Your task to perform on an android device: Show me productivity apps on the Play Store Image 0: 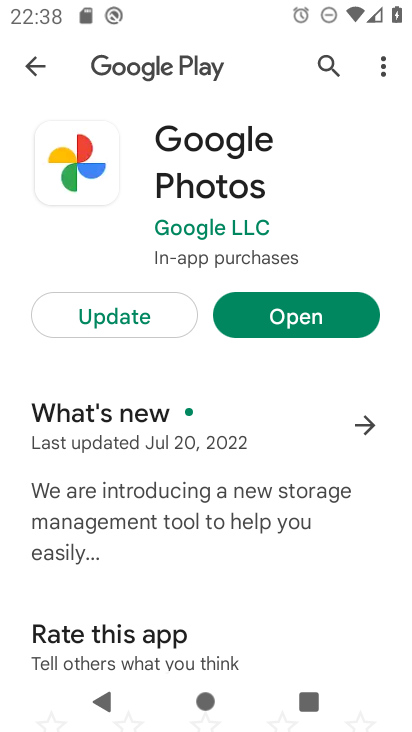
Step 0: press home button
Your task to perform on an android device: Show me productivity apps on the Play Store Image 1: 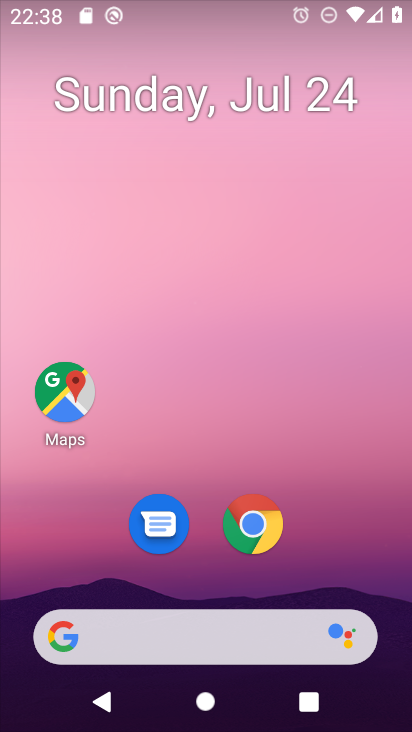
Step 1: drag from (204, 632) to (349, 131)
Your task to perform on an android device: Show me productivity apps on the Play Store Image 2: 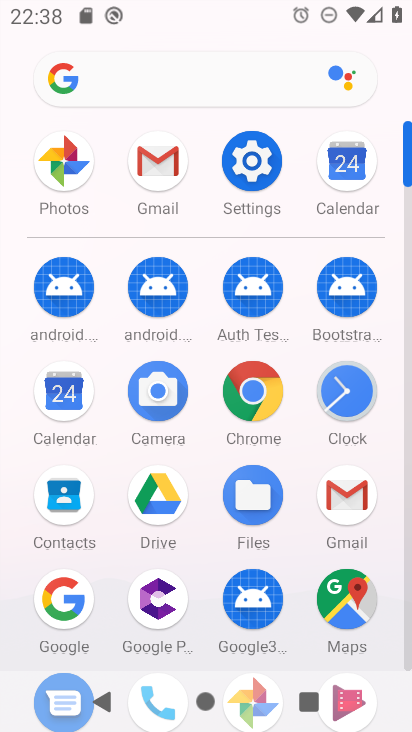
Step 2: drag from (203, 625) to (321, 222)
Your task to perform on an android device: Show me productivity apps on the Play Store Image 3: 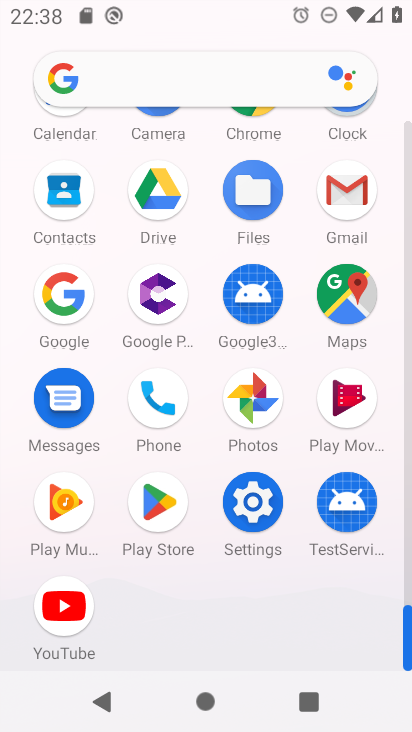
Step 3: click (159, 507)
Your task to perform on an android device: Show me productivity apps on the Play Store Image 4: 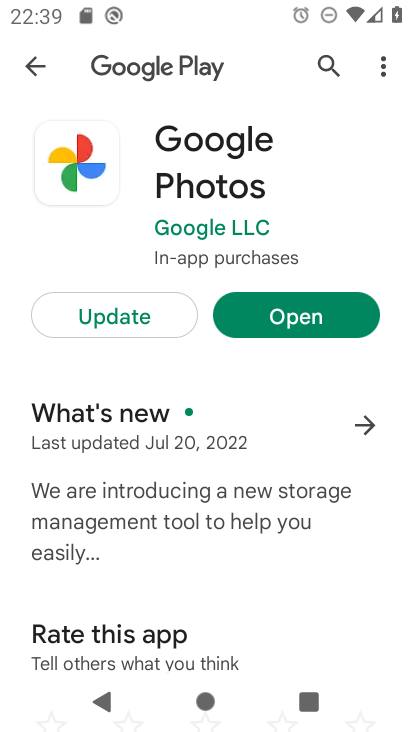
Step 4: click (288, 332)
Your task to perform on an android device: Show me productivity apps on the Play Store Image 5: 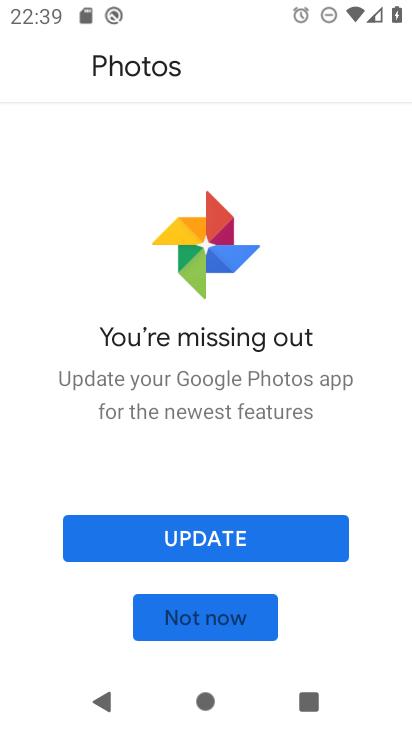
Step 5: press home button
Your task to perform on an android device: Show me productivity apps on the Play Store Image 6: 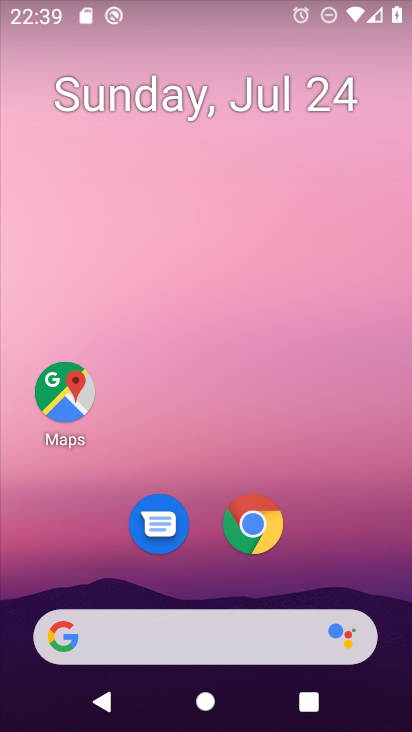
Step 6: drag from (176, 546) to (264, 51)
Your task to perform on an android device: Show me productivity apps on the Play Store Image 7: 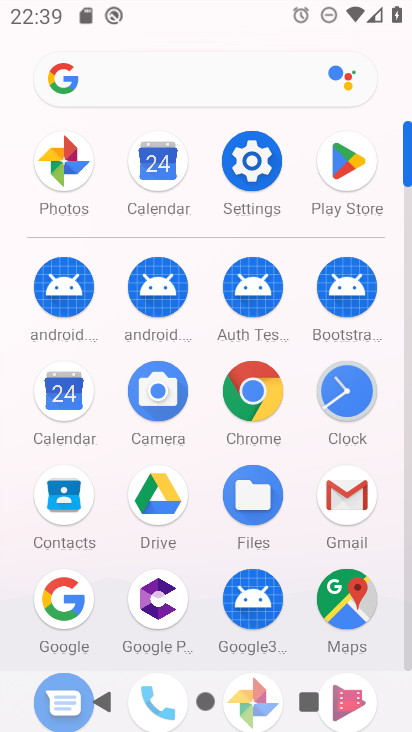
Step 7: drag from (176, 668) to (218, 143)
Your task to perform on an android device: Show me productivity apps on the Play Store Image 8: 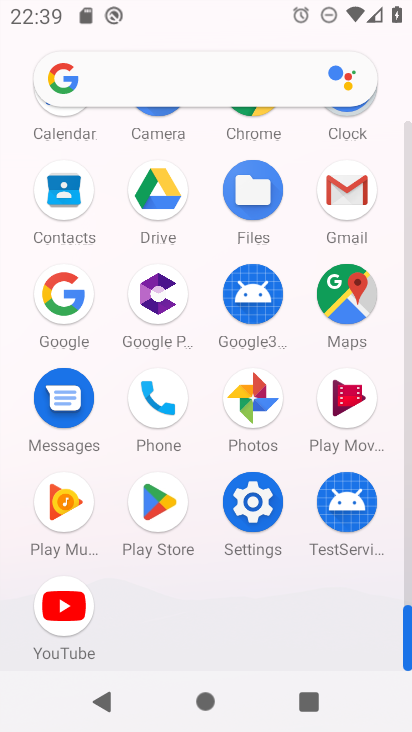
Step 8: click (154, 512)
Your task to perform on an android device: Show me productivity apps on the Play Store Image 9: 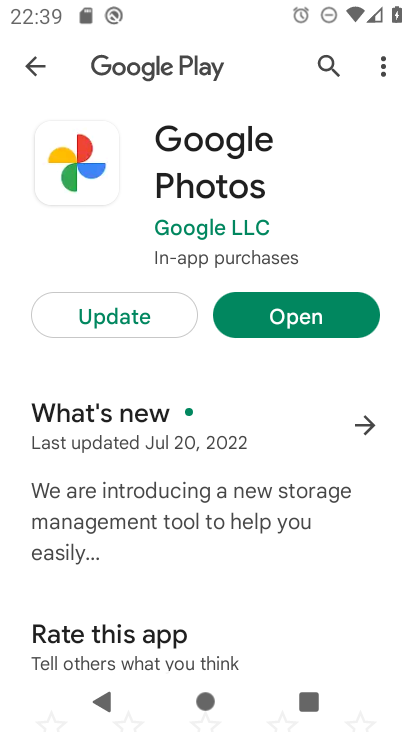
Step 9: click (30, 66)
Your task to perform on an android device: Show me productivity apps on the Play Store Image 10: 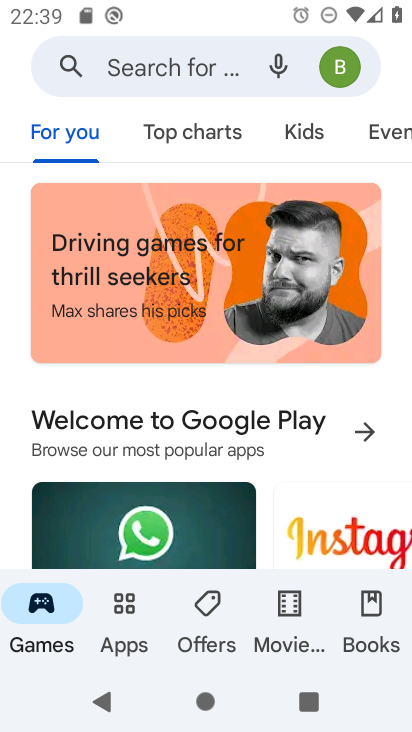
Step 10: click (119, 603)
Your task to perform on an android device: Show me productivity apps on the Play Store Image 11: 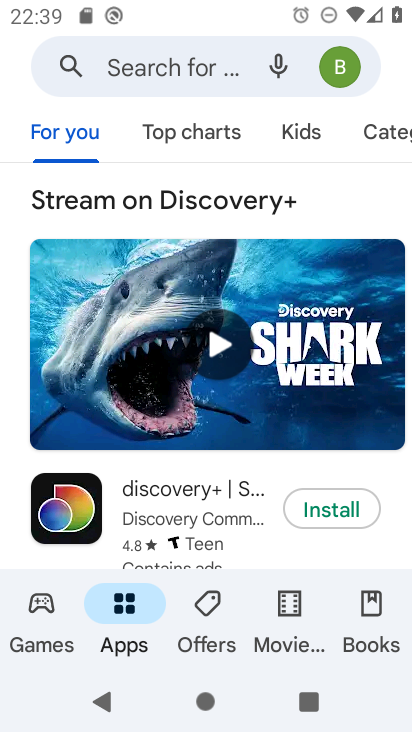
Step 11: click (376, 124)
Your task to perform on an android device: Show me productivity apps on the Play Store Image 12: 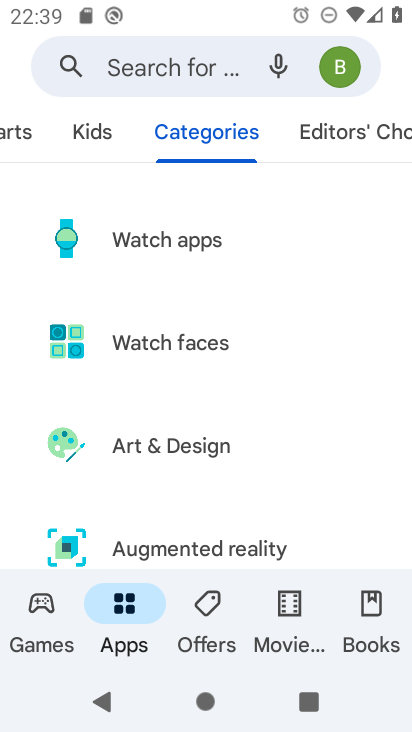
Step 12: drag from (210, 528) to (323, 44)
Your task to perform on an android device: Show me productivity apps on the Play Store Image 13: 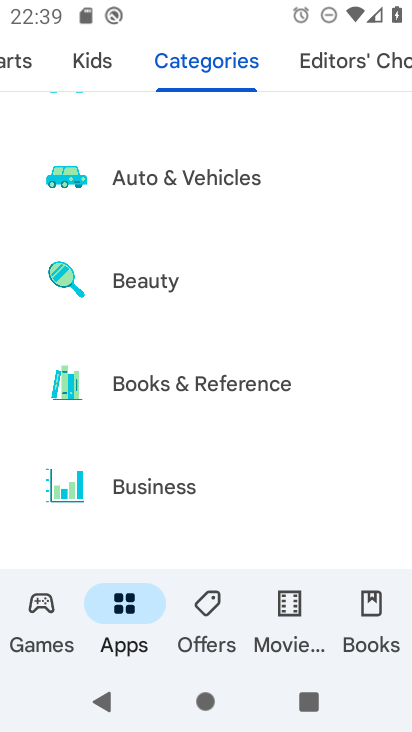
Step 13: drag from (252, 434) to (344, 17)
Your task to perform on an android device: Show me productivity apps on the Play Store Image 14: 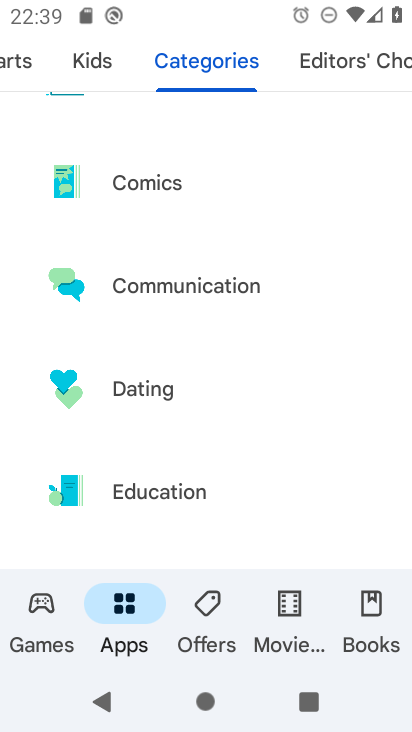
Step 14: drag from (276, 440) to (315, 39)
Your task to perform on an android device: Show me productivity apps on the Play Store Image 15: 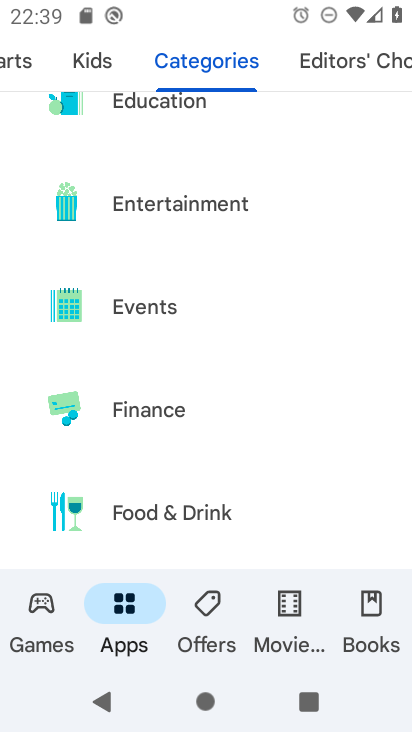
Step 15: drag from (236, 534) to (330, 11)
Your task to perform on an android device: Show me productivity apps on the Play Store Image 16: 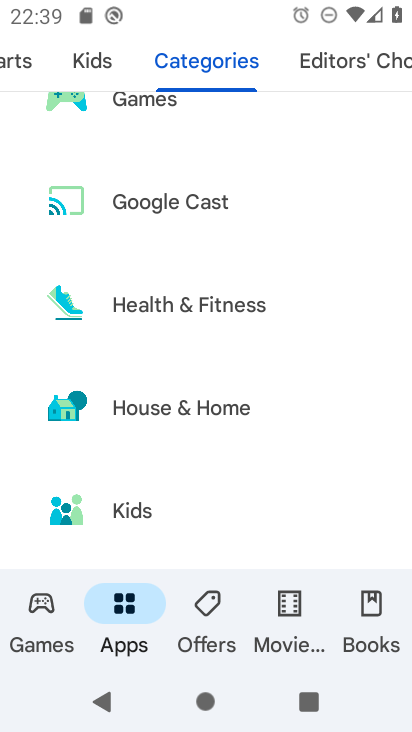
Step 16: drag from (257, 528) to (321, 4)
Your task to perform on an android device: Show me productivity apps on the Play Store Image 17: 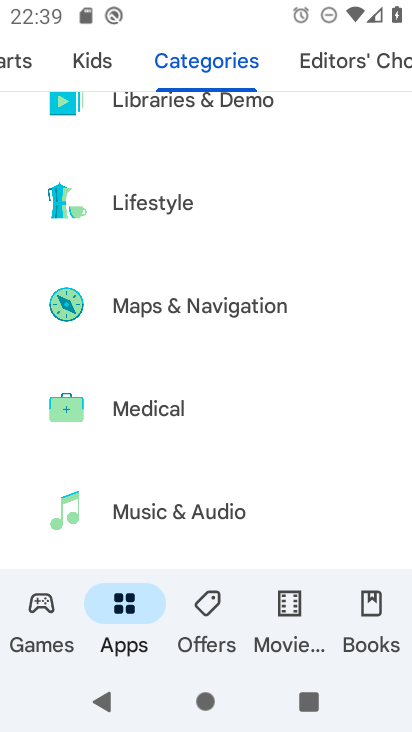
Step 17: drag from (235, 520) to (303, 60)
Your task to perform on an android device: Show me productivity apps on the Play Store Image 18: 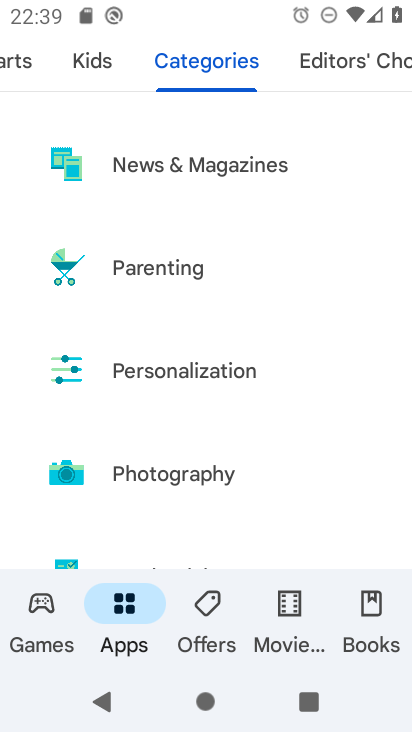
Step 18: drag from (224, 517) to (330, 114)
Your task to perform on an android device: Show me productivity apps on the Play Store Image 19: 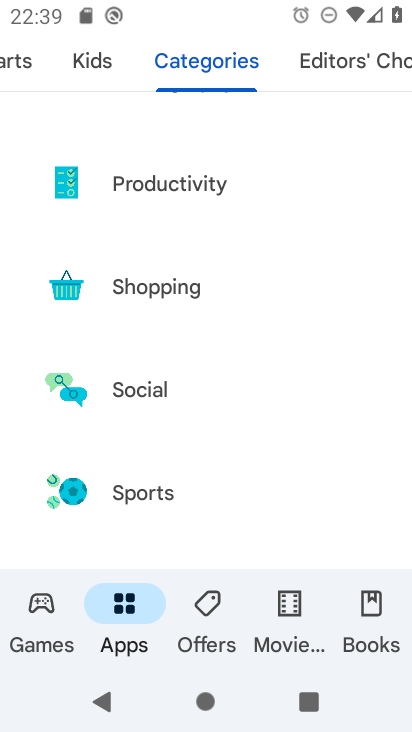
Step 19: click (179, 184)
Your task to perform on an android device: Show me productivity apps on the Play Store Image 20: 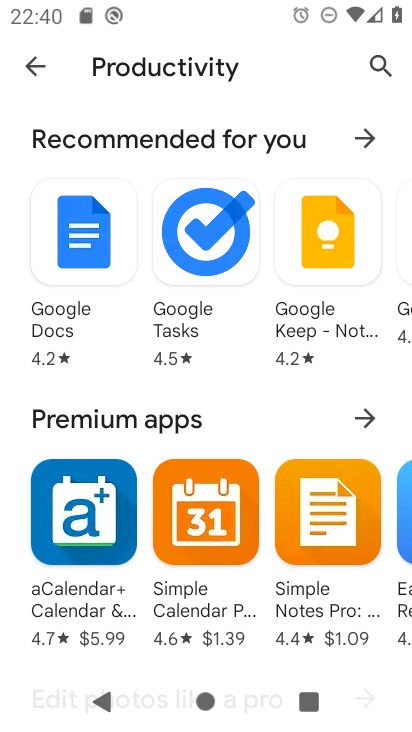
Step 20: task complete